Your task to perform on an android device: Is it going to rain today? Image 0: 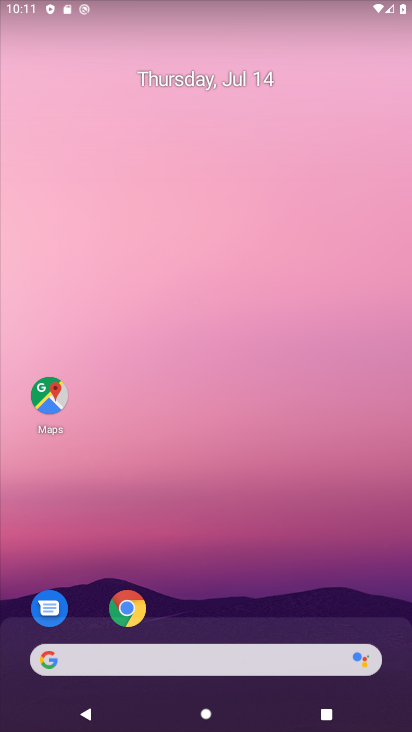
Step 0: drag from (254, 705) to (253, 297)
Your task to perform on an android device: Is it going to rain today? Image 1: 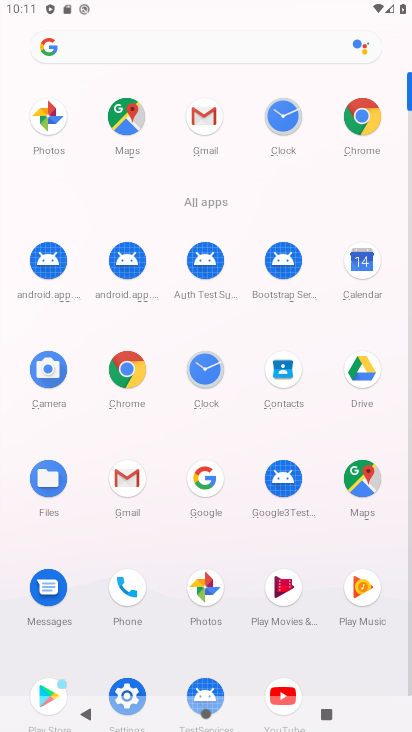
Step 1: click (207, 477)
Your task to perform on an android device: Is it going to rain today? Image 2: 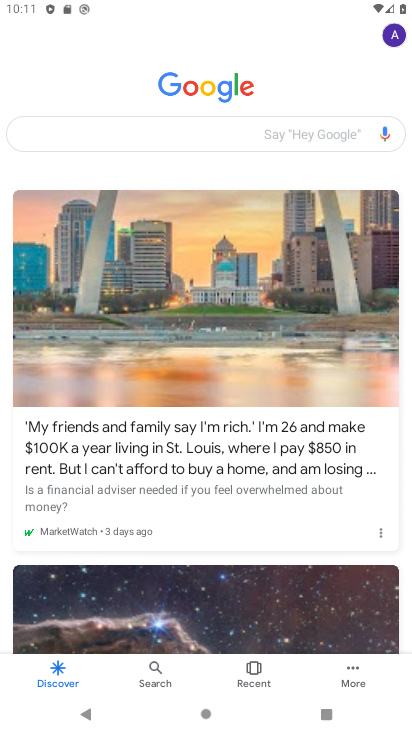
Step 2: click (190, 134)
Your task to perform on an android device: Is it going to rain today? Image 3: 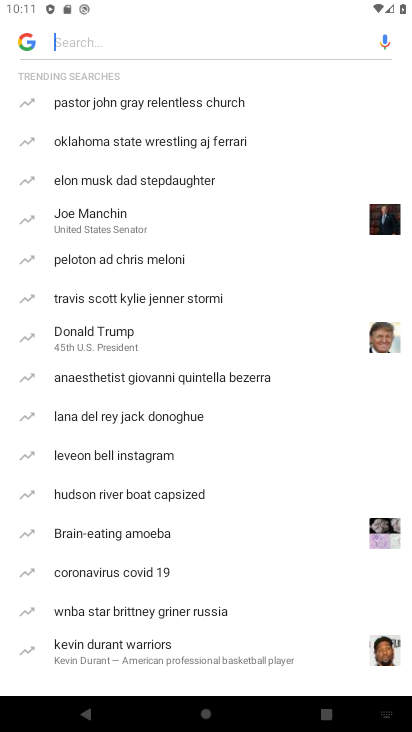
Step 3: type "Weather"
Your task to perform on an android device: Is it going to rain today? Image 4: 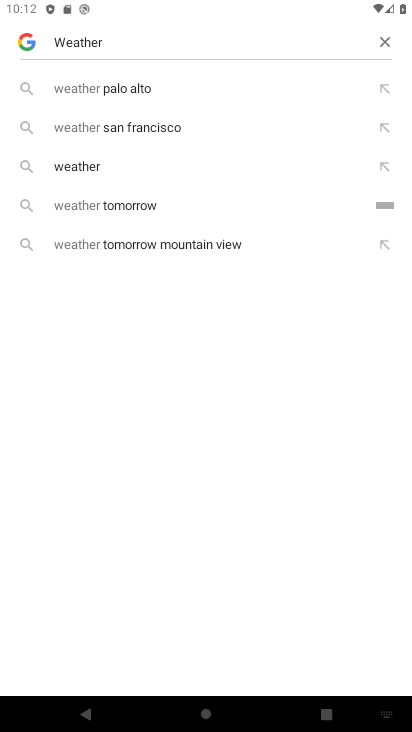
Step 4: click (67, 165)
Your task to perform on an android device: Is it going to rain today? Image 5: 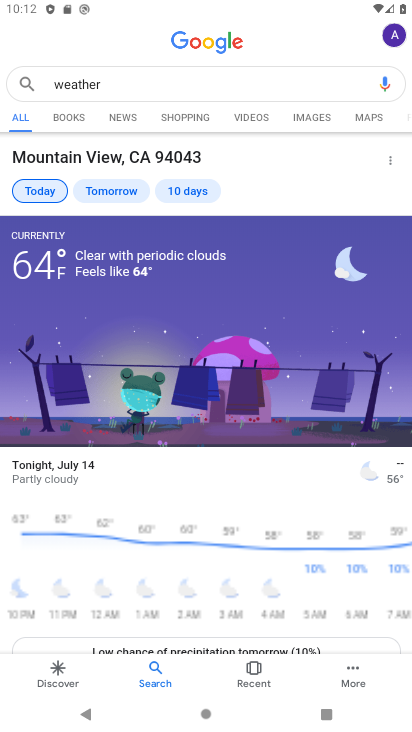
Step 5: click (35, 194)
Your task to perform on an android device: Is it going to rain today? Image 6: 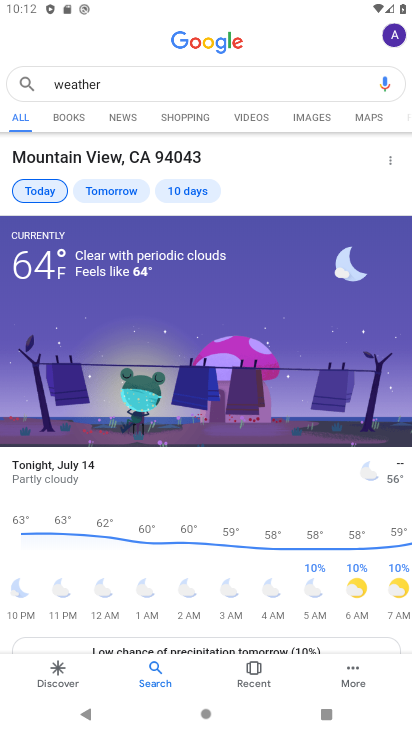
Step 6: click (31, 190)
Your task to perform on an android device: Is it going to rain today? Image 7: 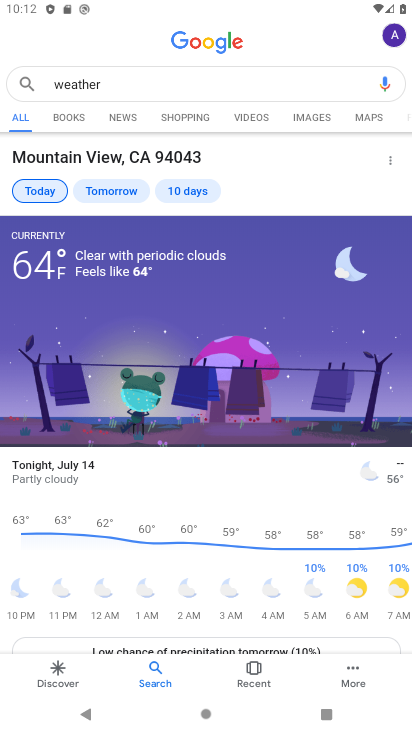
Step 7: task complete